Your task to perform on an android device: check the backup settings in the google photos Image 0: 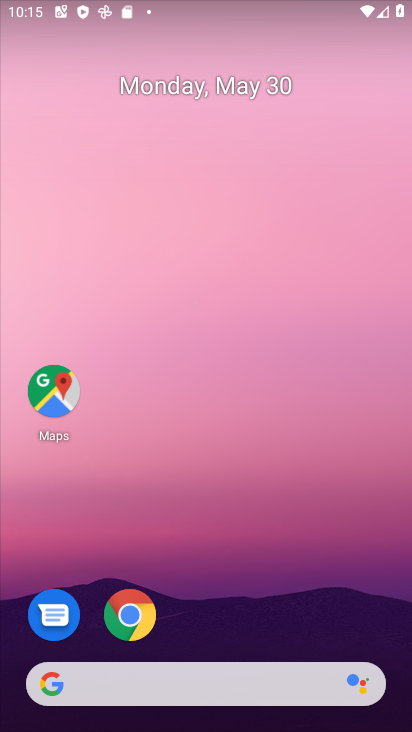
Step 0: drag from (283, 536) to (124, 34)
Your task to perform on an android device: check the backup settings in the google photos Image 1: 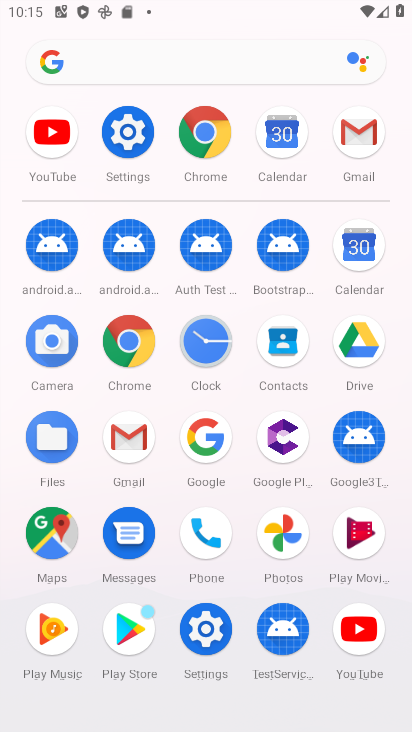
Step 1: click (279, 532)
Your task to perform on an android device: check the backup settings in the google photos Image 2: 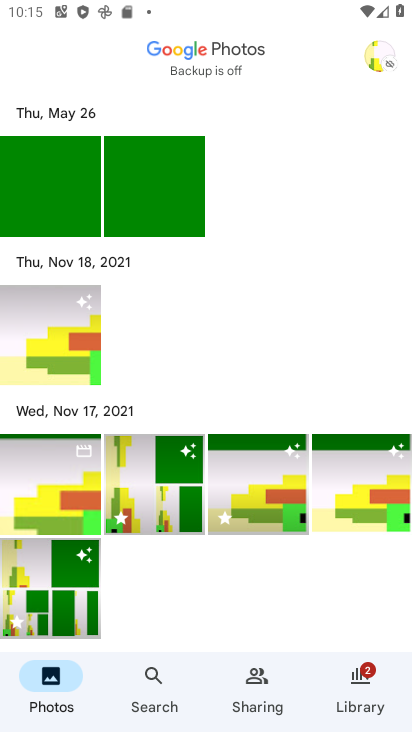
Step 2: click (382, 53)
Your task to perform on an android device: check the backup settings in the google photos Image 3: 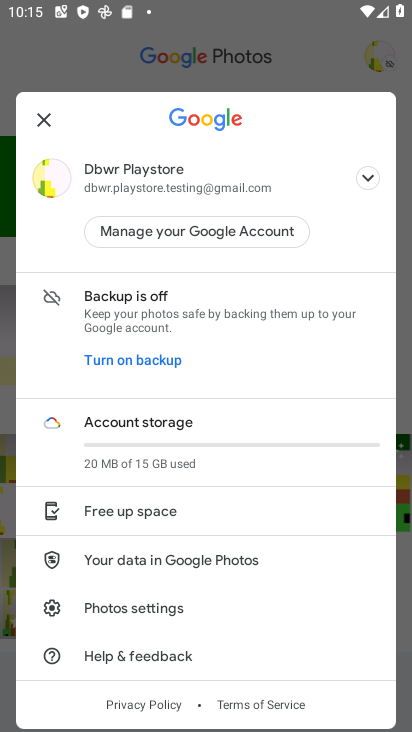
Step 3: click (170, 602)
Your task to perform on an android device: check the backup settings in the google photos Image 4: 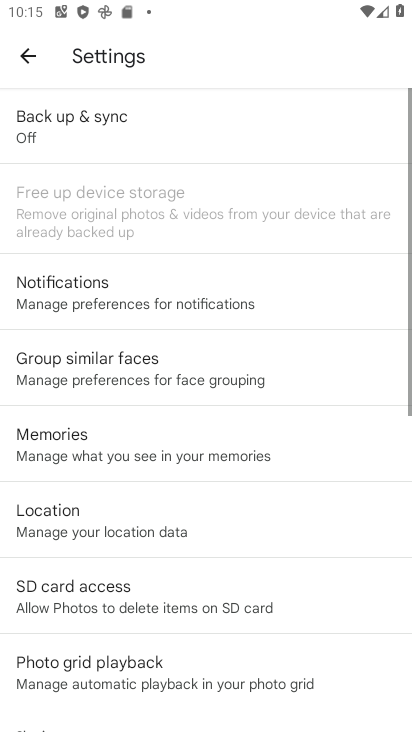
Step 4: click (99, 131)
Your task to perform on an android device: check the backup settings in the google photos Image 5: 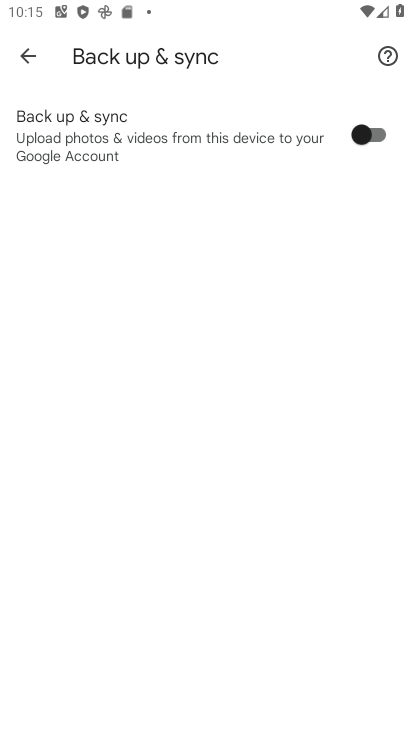
Step 5: task complete